Your task to perform on an android device: turn smart compose on in the gmail app Image 0: 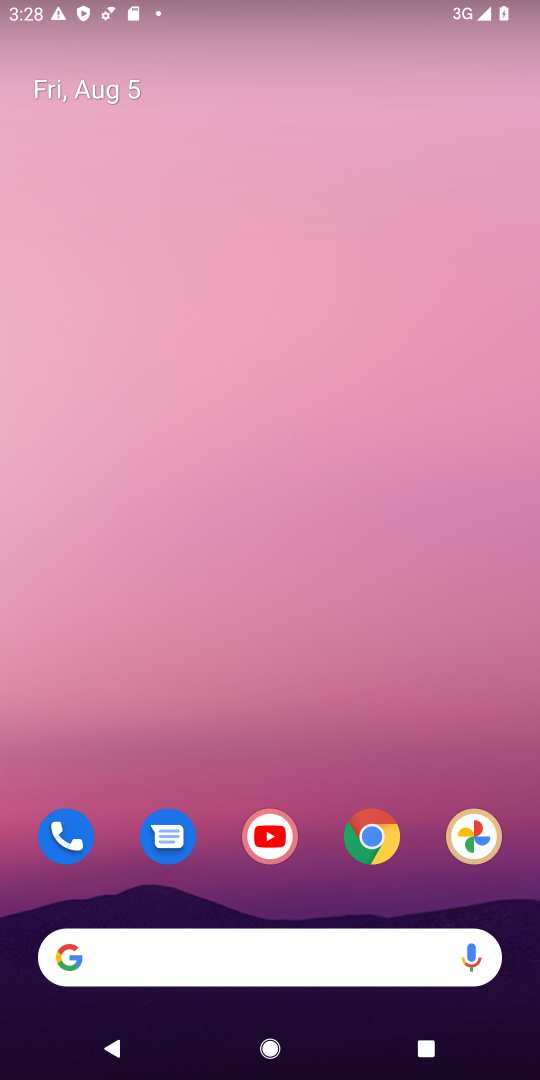
Step 0: drag from (275, 687) to (289, 0)
Your task to perform on an android device: turn smart compose on in the gmail app Image 1: 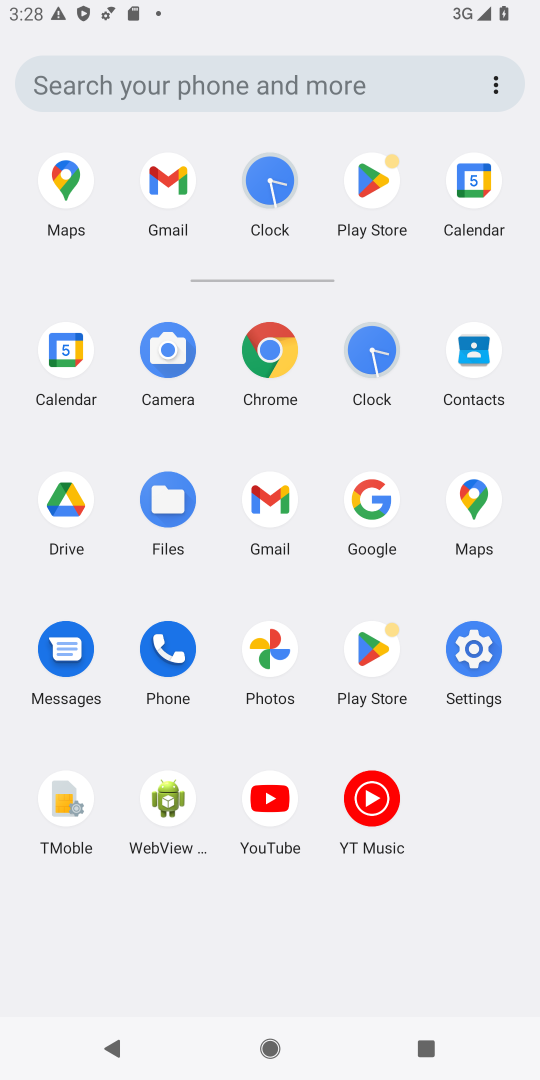
Step 1: click (159, 198)
Your task to perform on an android device: turn smart compose on in the gmail app Image 2: 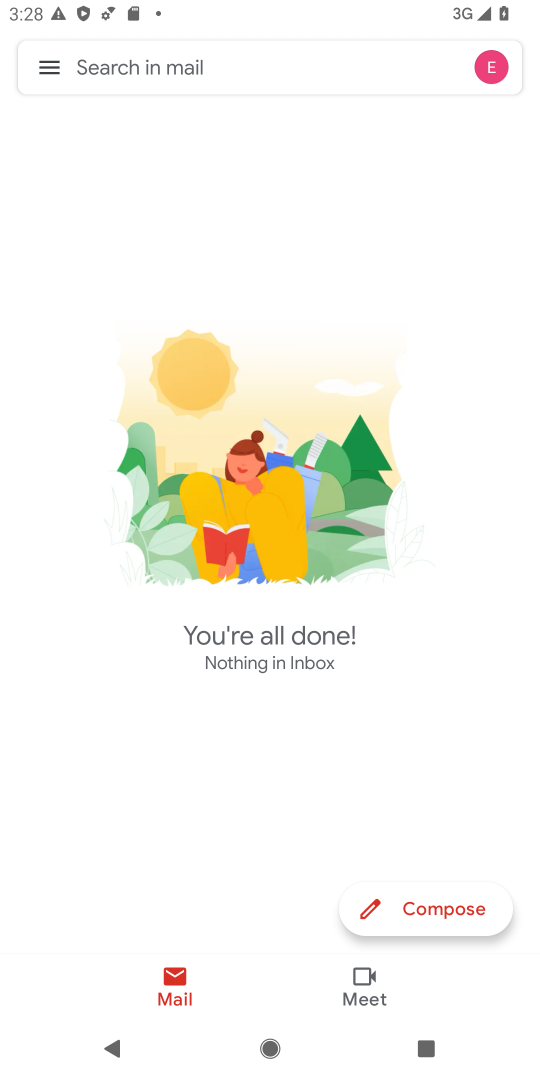
Step 2: click (39, 60)
Your task to perform on an android device: turn smart compose on in the gmail app Image 3: 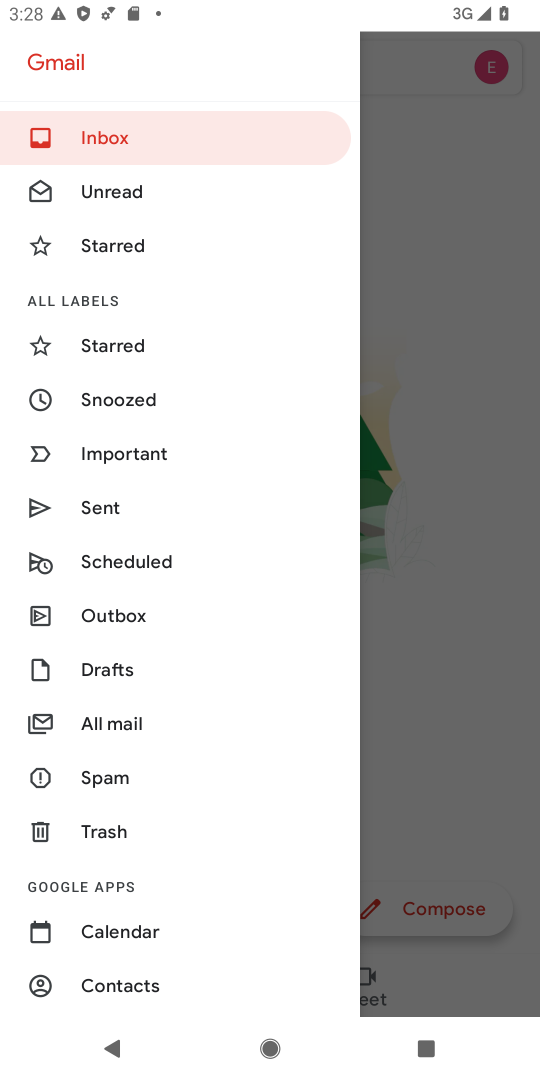
Step 3: drag from (147, 832) to (193, 146)
Your task to perform on an android device: turn smart compose on in the gmail app Image 4: 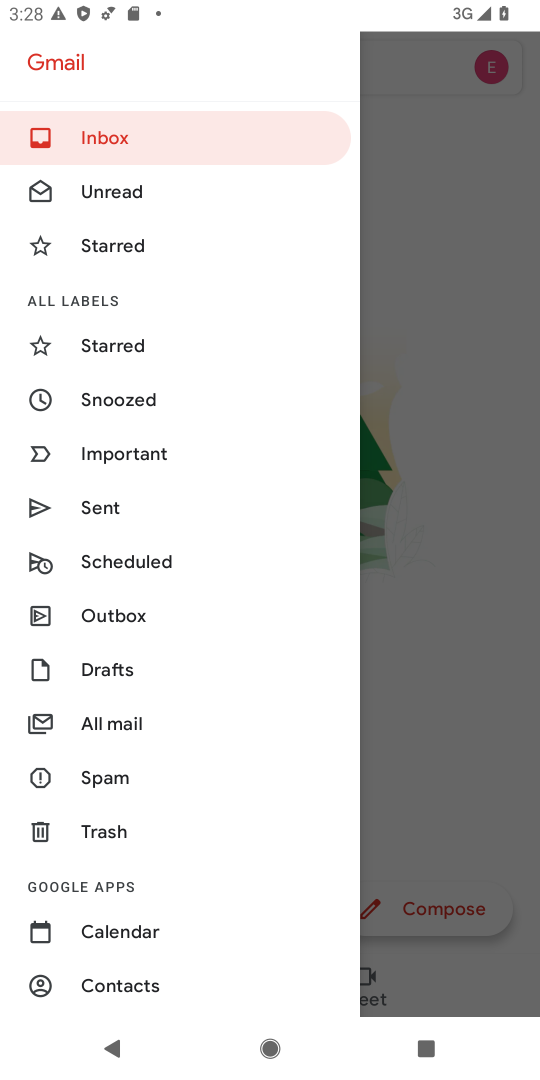
Step 4: drag from (126, 840) to (231, 230)
Your task to perform on an android device: turn smart compose on in the gmail app Image 5: 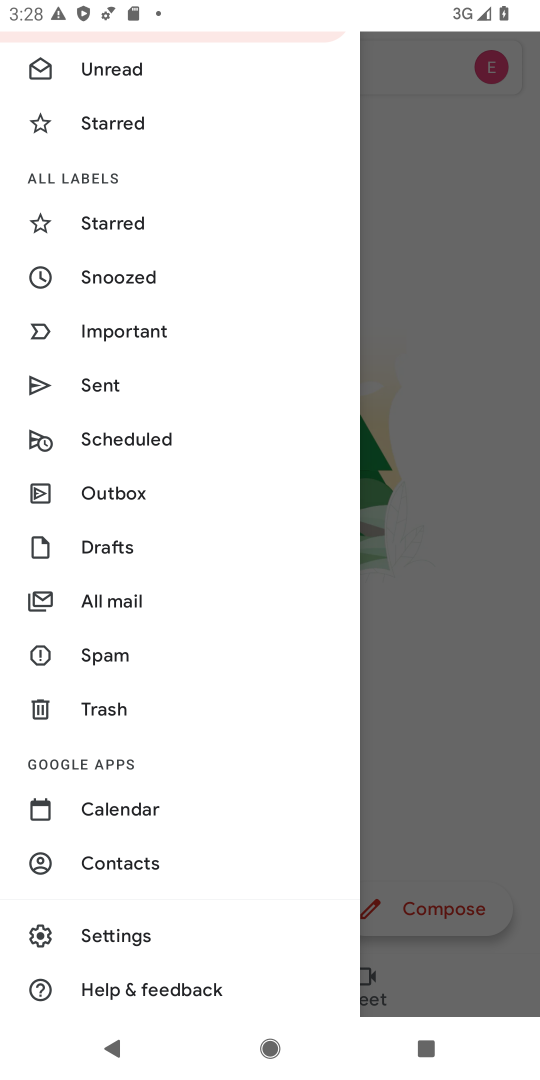
Step 5: click (116, 939)
Your task to perform on an android device: turn smart compose on in the gmail app Image 6: 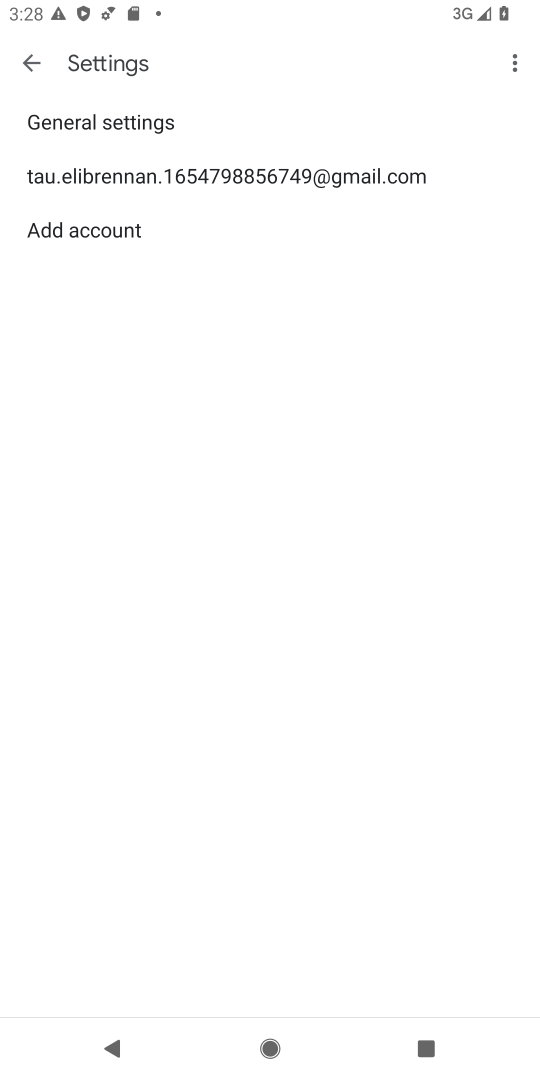
Step 6: click (44, 166)
Your task to perform on an android device: turn smart compose on in the gmail app Image 7: 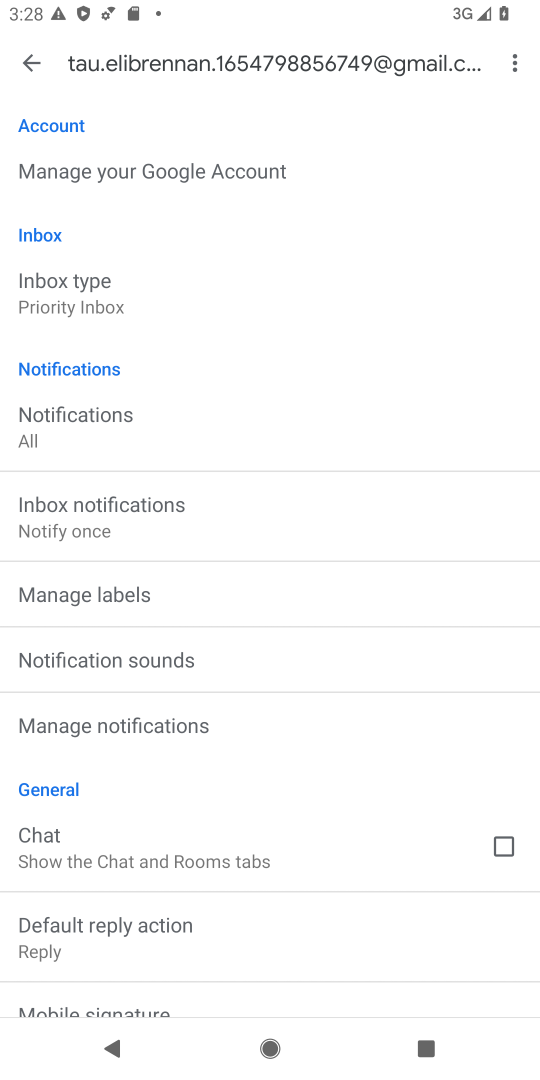
Step 7: task complete